Your task to perform on an android device: set default search engine in the chrome app Image 0: 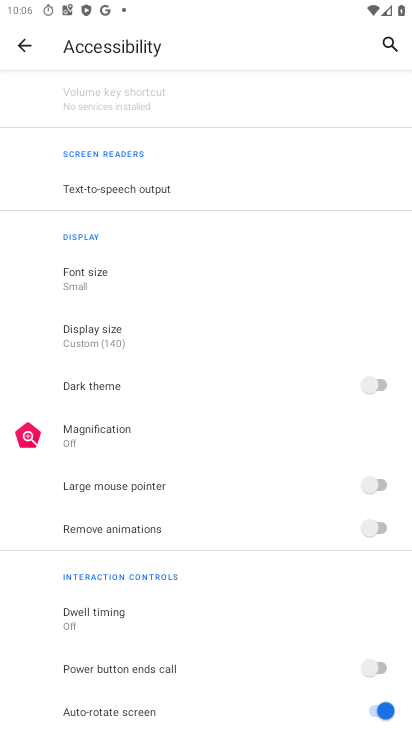
Step 0: press home button
Your task to perform on an android device: set default search engine in the chrome app Image 1: 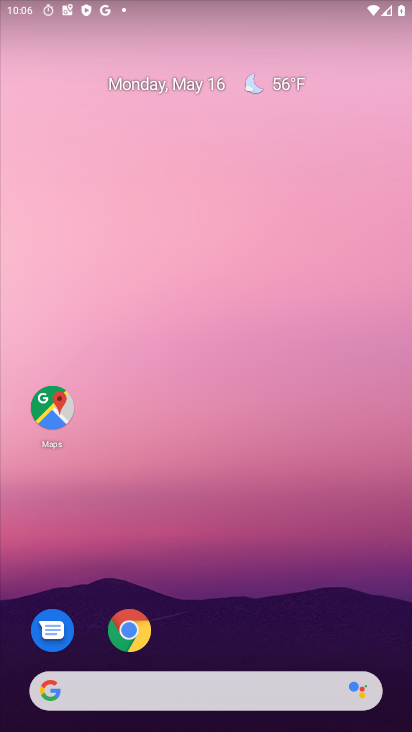
Step 1: click (129, 627)
Your task to perform on an android device: set default search engine in the chrome app Image 2: 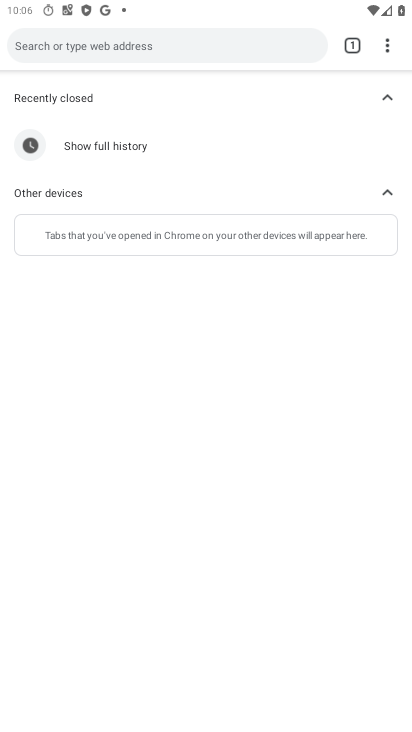
Step 2: click (388, 40)
Your task to perform on an android device: set default search engine in the chrome app Image 3: 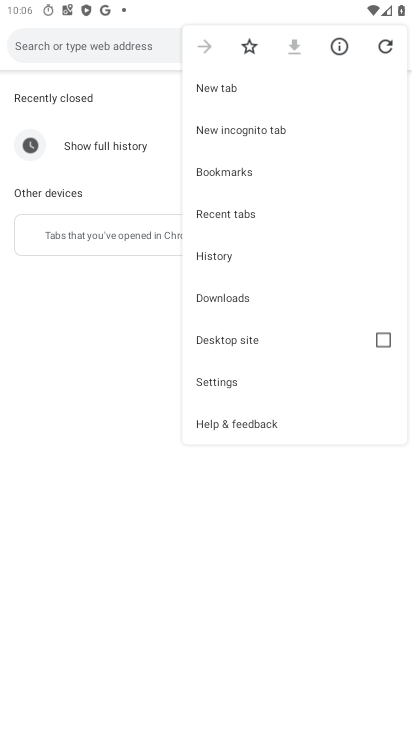
Step 3: click (226, 384)
Your task to perform on an android device: set default search engine in the chrome app Image 4: 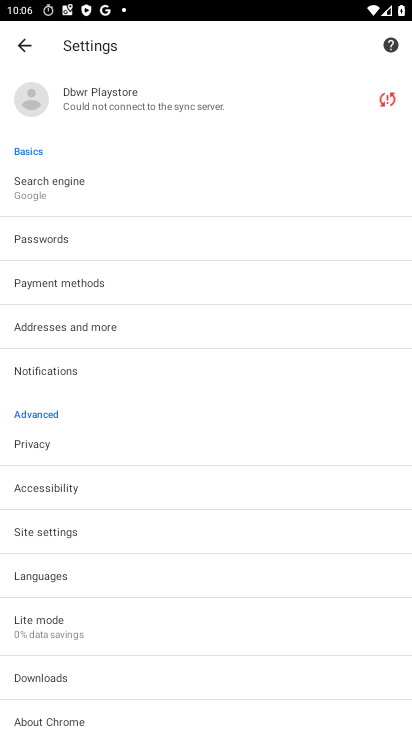
Step 4: click (71, 539)
Your task to perform on an android device: set default search engine in the chrome app Image 5: 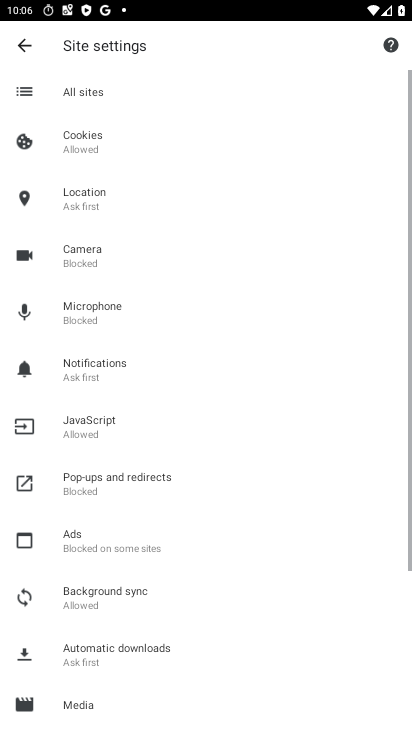
Step 5: click (21, 38)
Your task to perform on an android device: set default search engine in the chrome app Image 6: 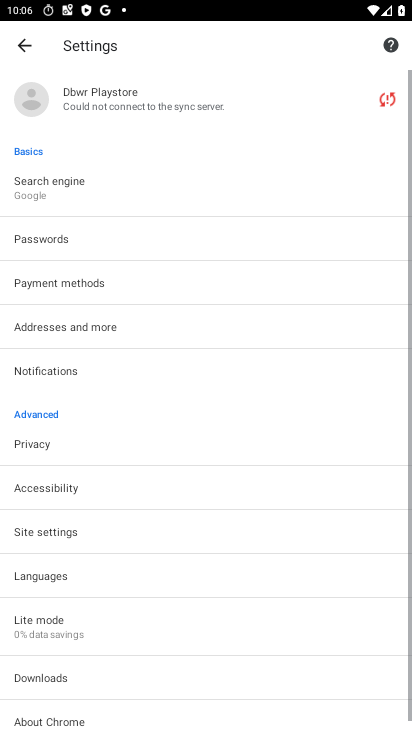
Step 6: click (94, 204)
Your task to perform on an android device: set default search engine in the chrome app Image 7: 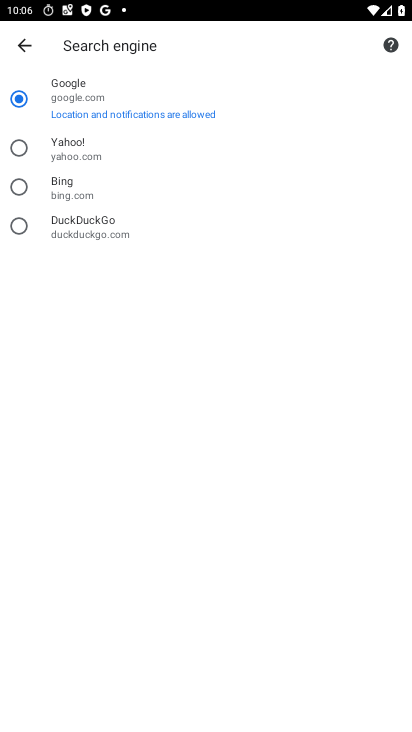
Step 7: click (89, 111)
Your task to perform on an android device: set default search engine in the chrome app Image 8: 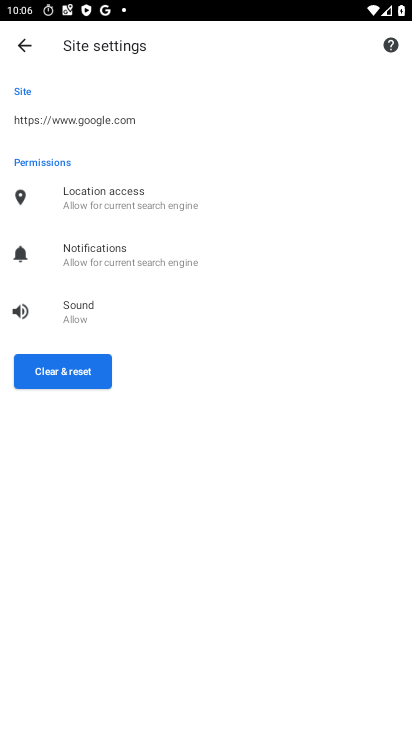
Step 8: click (64, 365)
Your task to perform on an android device: set default search engine in the chrome app Image 9: 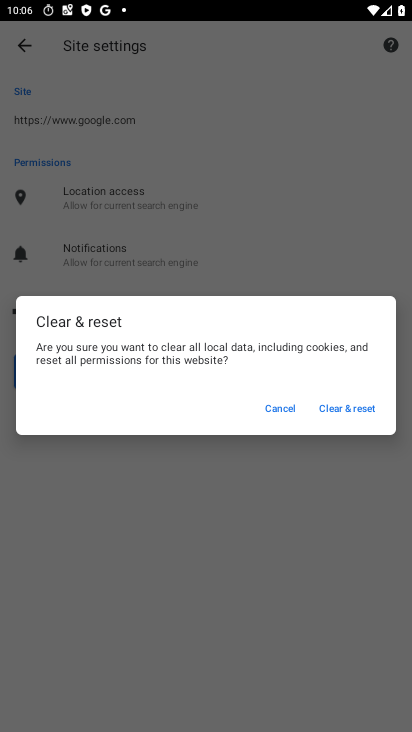
Step 9: click (335, 401)
Your task to perform on an android device: set default search engine in the chrome app Image 10: 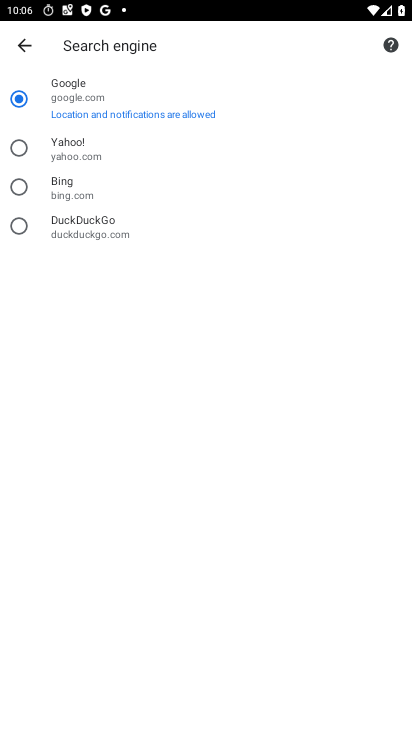
Step 10: task complete